Your task to perform on an android device: open app "Skype" (install if not already installed) and go to login screen Image 0: 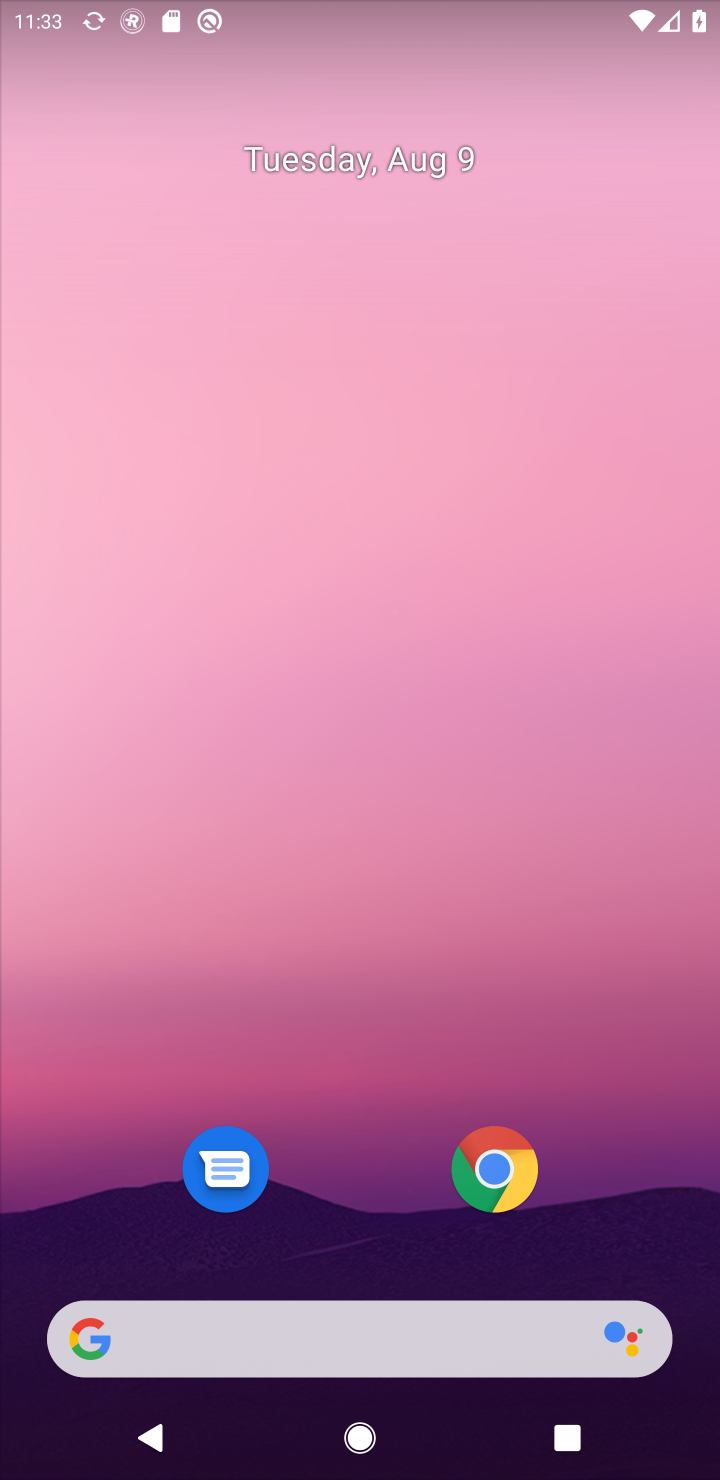
Step 0: press home button
Your task to perform on an android device: open app "Skype" (install if not already installed) and go to login screen Image 1: 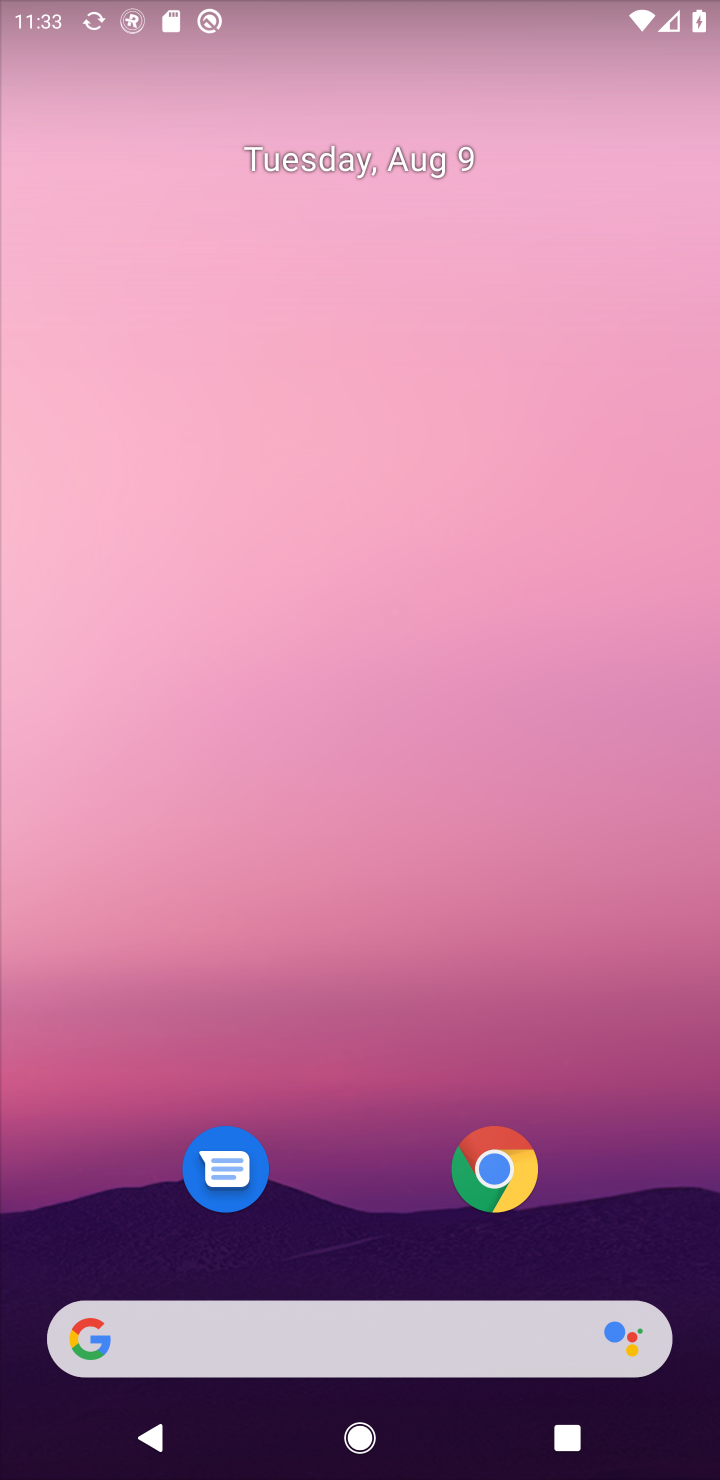
Step 1: drag from (615, 1041) to (624, 106)
Your task to perform on an android device: open app "Skype" (install if not already installed) and go to login screen Image 2: 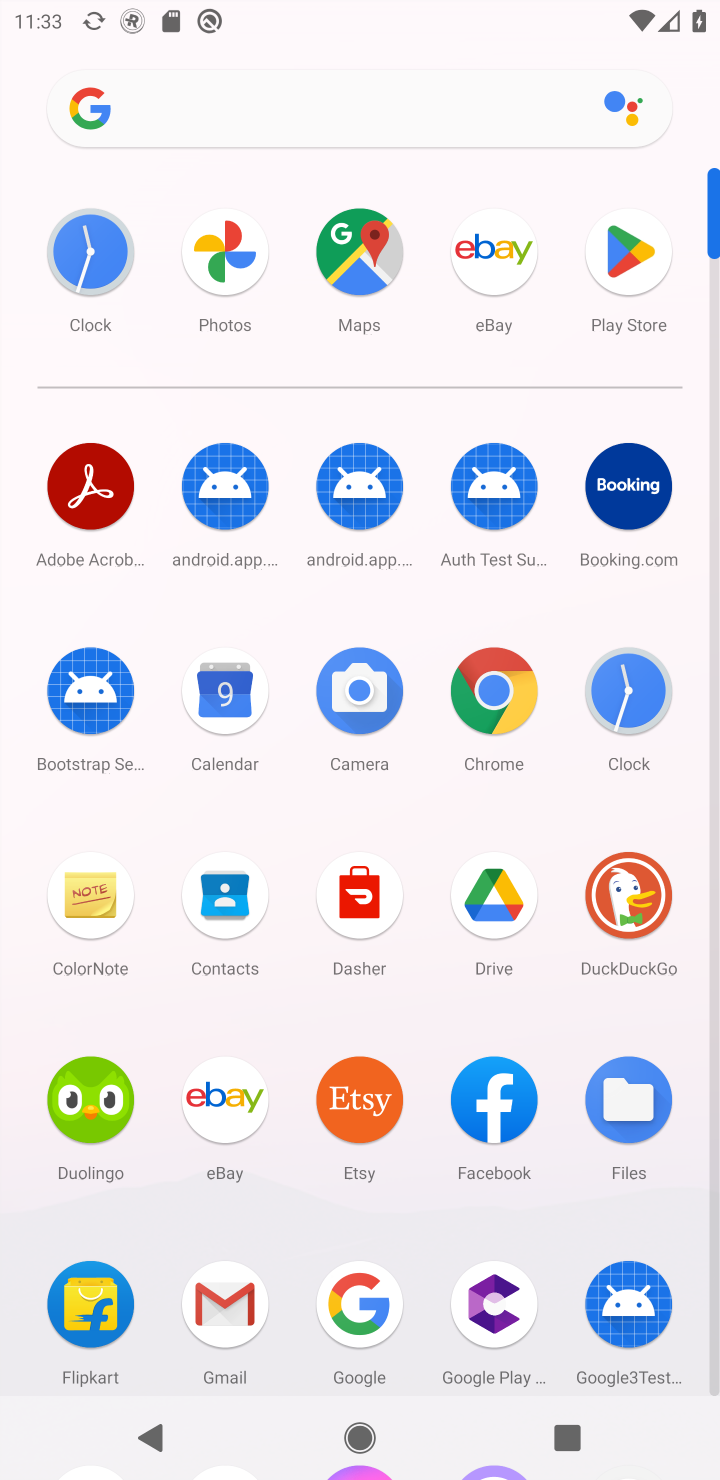
Step 2: click (645, 249)
Your task to perform on an android device: open app "Skype" (install if not already installed) and go to login screen Image 3: 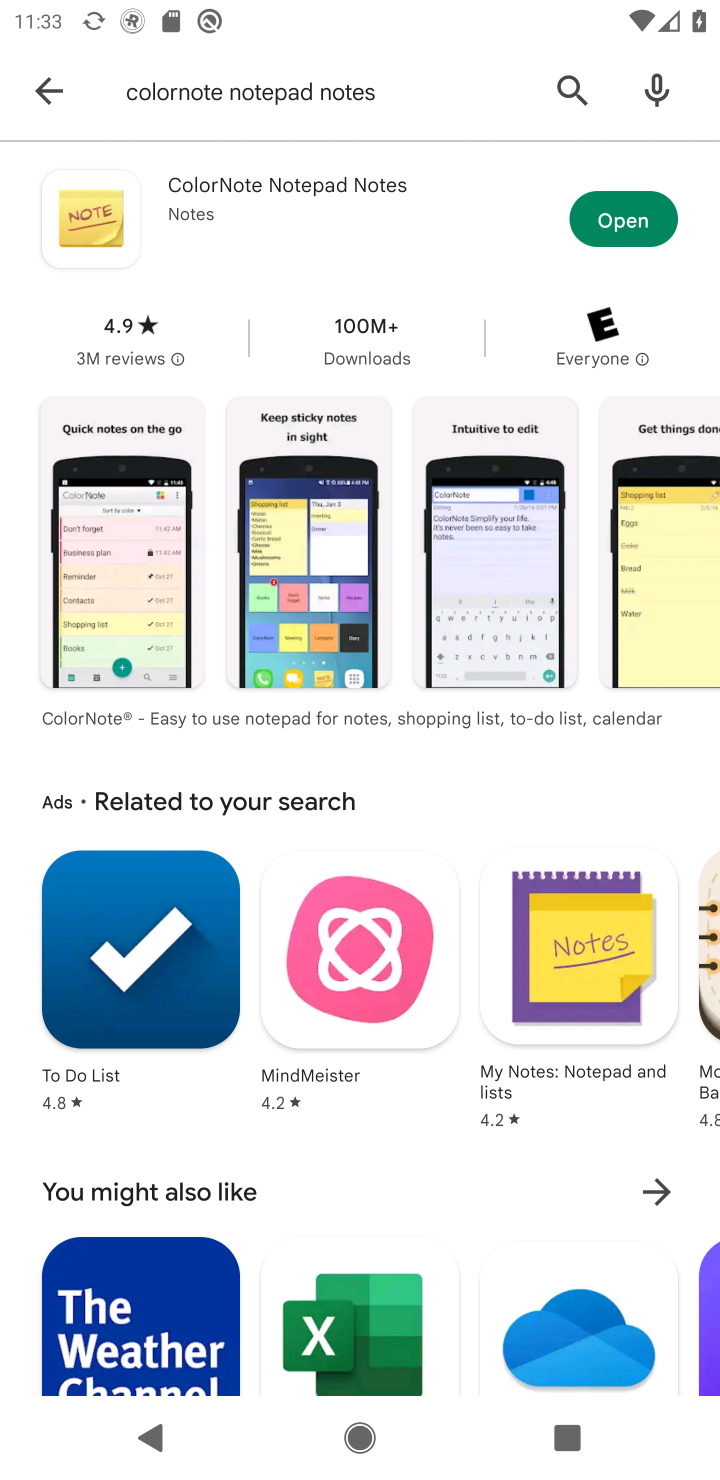
Step 3: click (575, 87)
Your task to perform on an android device: open app "Skype" (install if not already installed) and go to login screen Image 4: 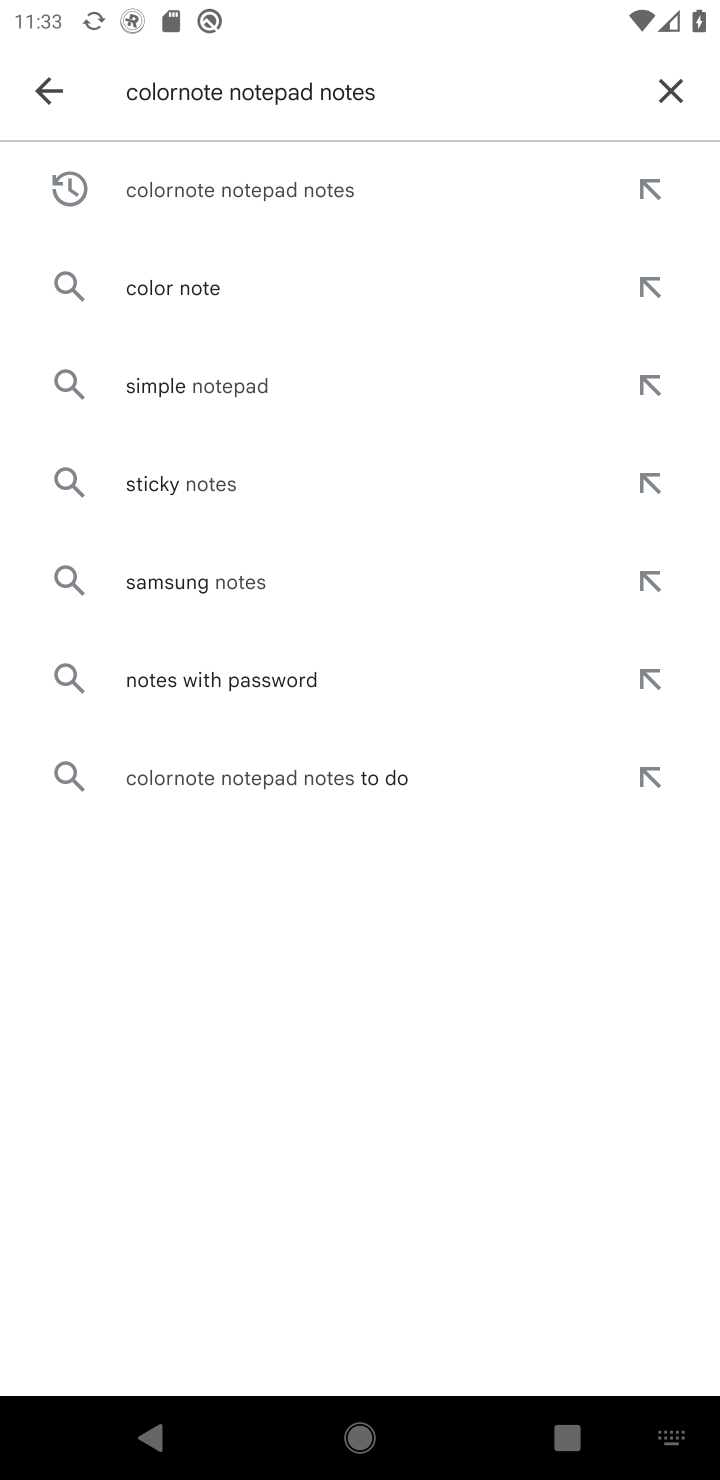
Step 4: click (672, 77)
Your task to perform on an android device: open app "Skype" (install if not already installed) and go to login screen Image 5: 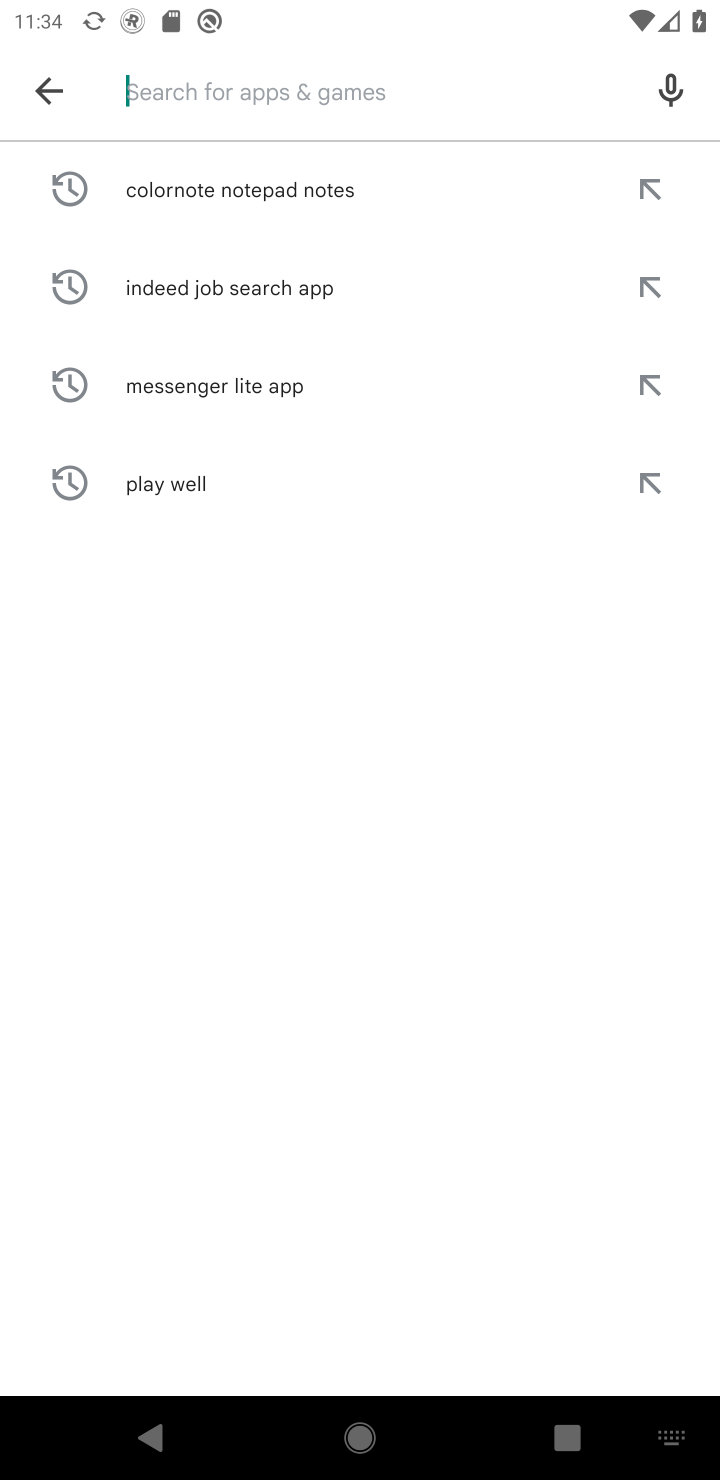
Step 5: type "skype"
Your task to perform on an android device: open app "Skype" (install if not already installed) and go to login screen Image 6: 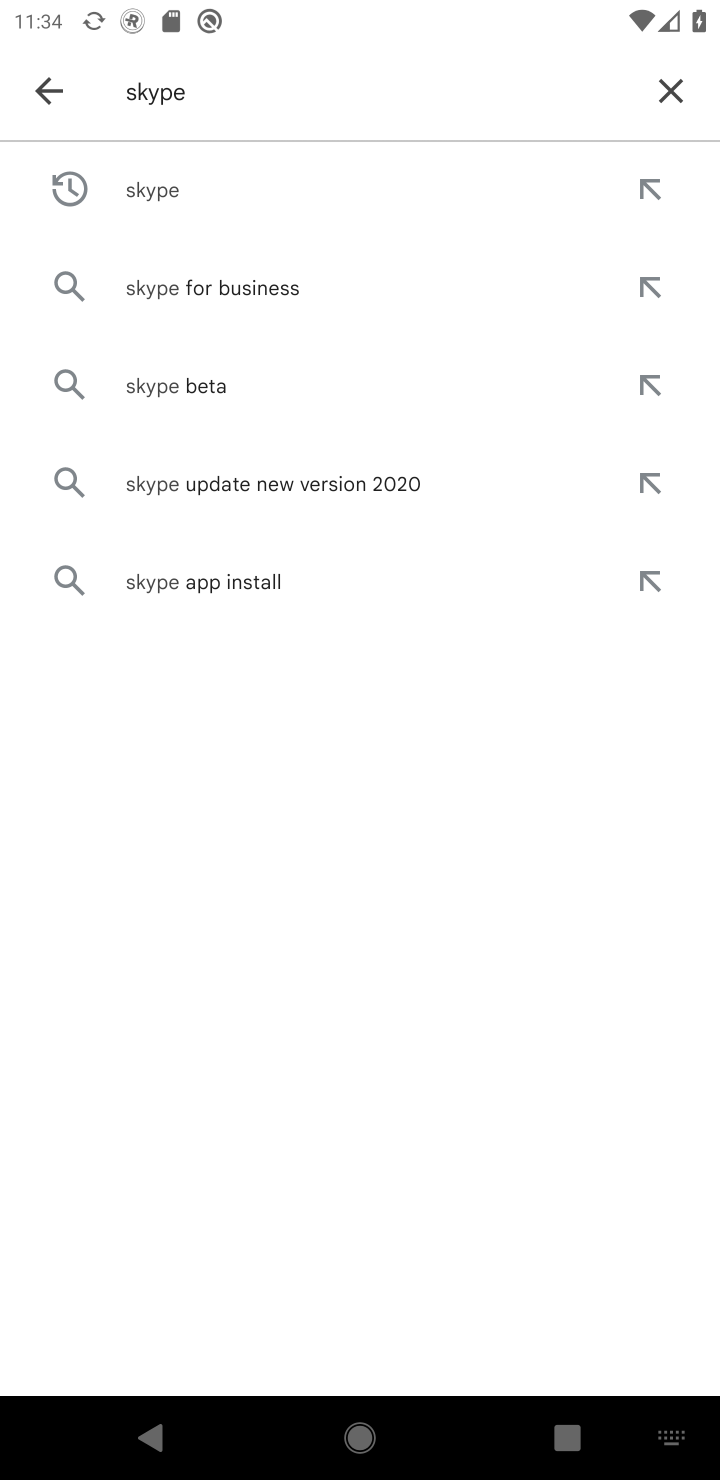
Step 6: click (164, 189)
Your task to perform on an android device: open app "Skype" (install if not already installed) and go to login screen Image 7: 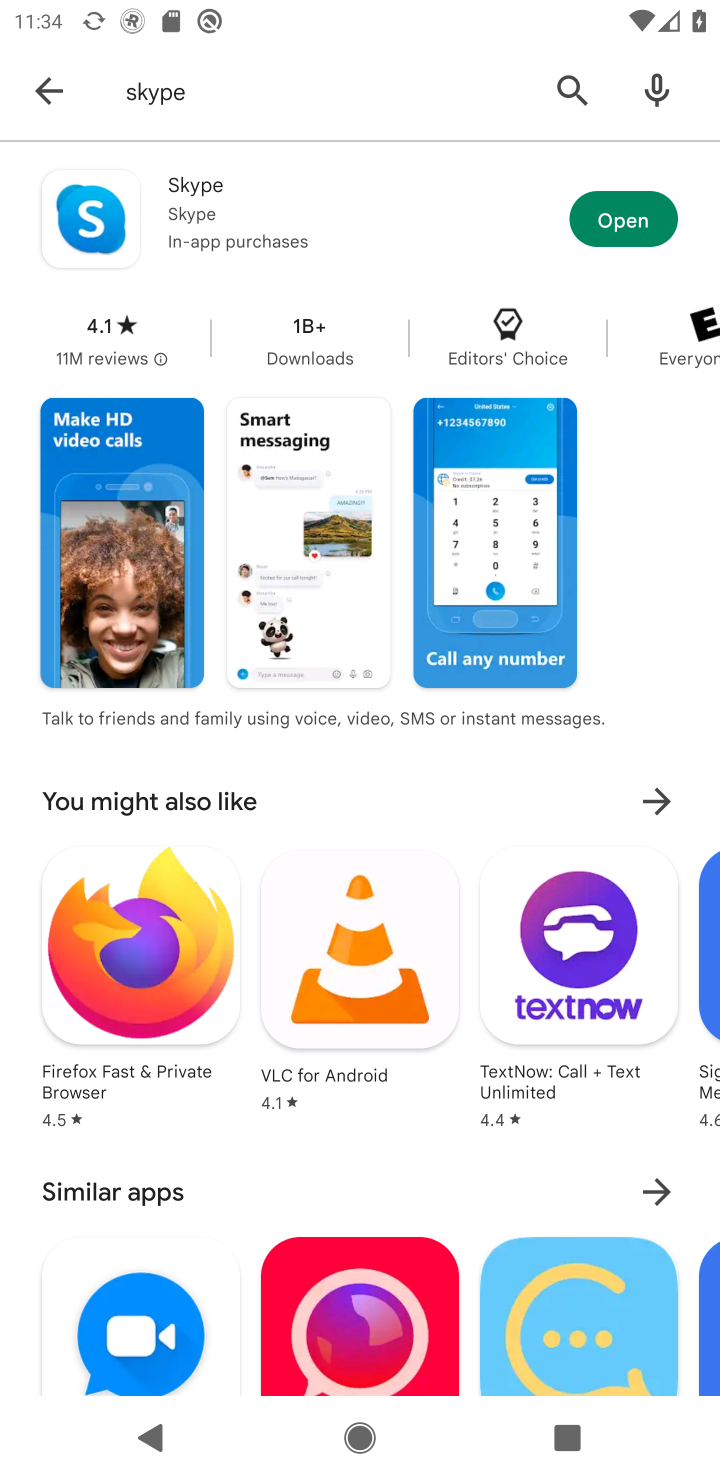
Step 7: click (623, 209)
Your task to perform on an android device: open app "Skype" (install if not already installed) and go to login screen Image 8: 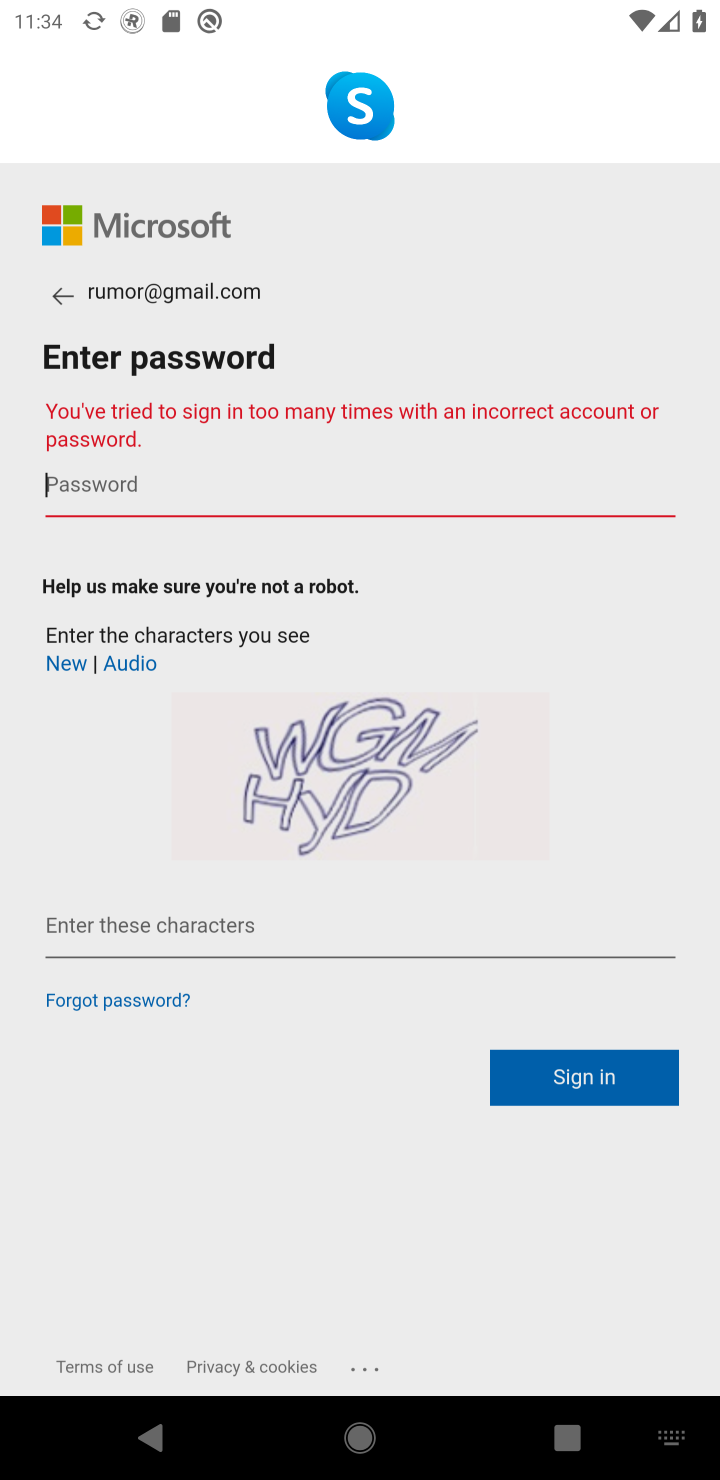
Step 8: task complete